Your task to perform on an android device: open the mobile data screen to see how much data has been used Image 0: 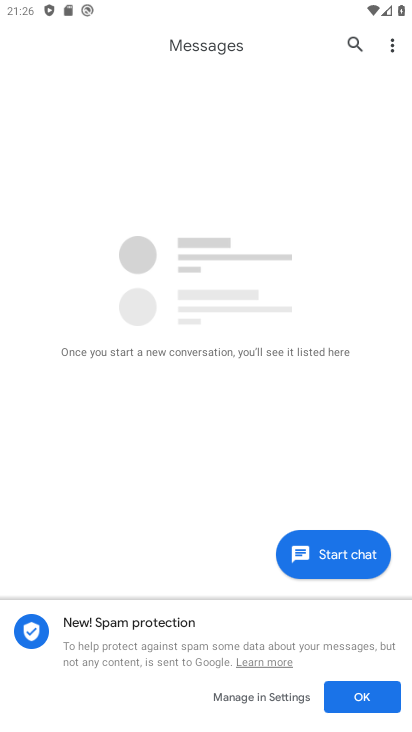
Step 0: press home button
Your task to perform on an android device: open the mobile data screen to see how much data has been used Image 1: 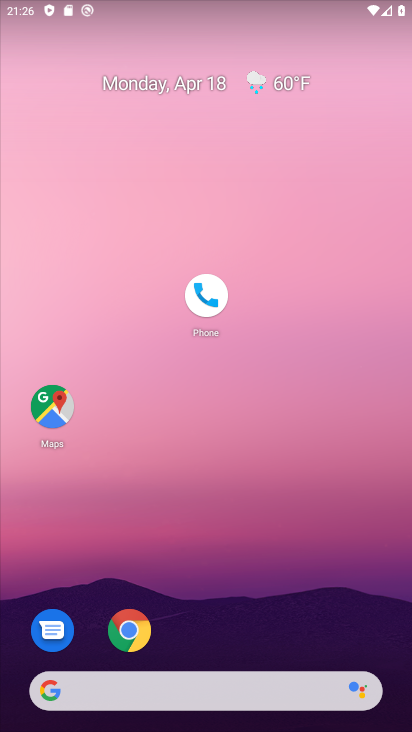
Step 1: drag from (315, 578) to (341, 47)
Your task to perform on an android device: open the mobile data screen to see how much data has been used Image 2: 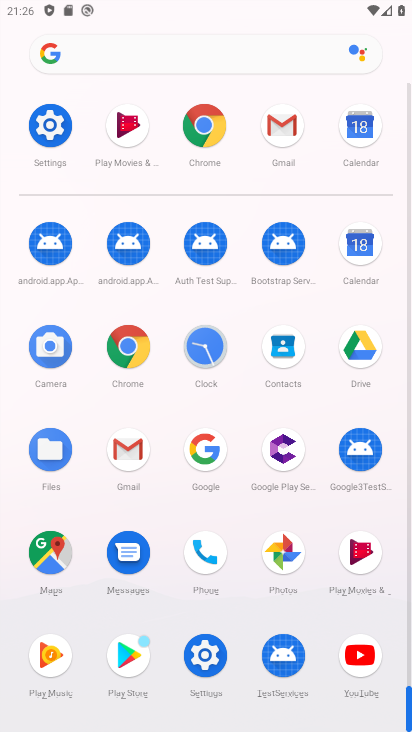
Step 2: click (52, 114)
Your task to perform on an android device: open the mobile data screen to see how much data has been used Image 3: 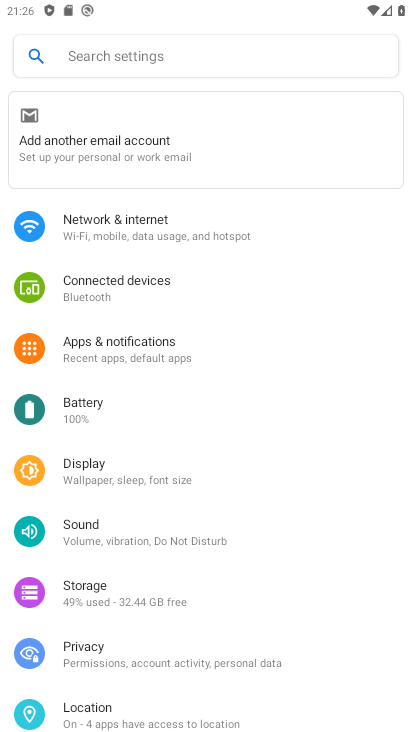
Step 3: click (153, 224)
Your task to perform on an android device: open the mobile data screen to see how much data has been used Image 4: 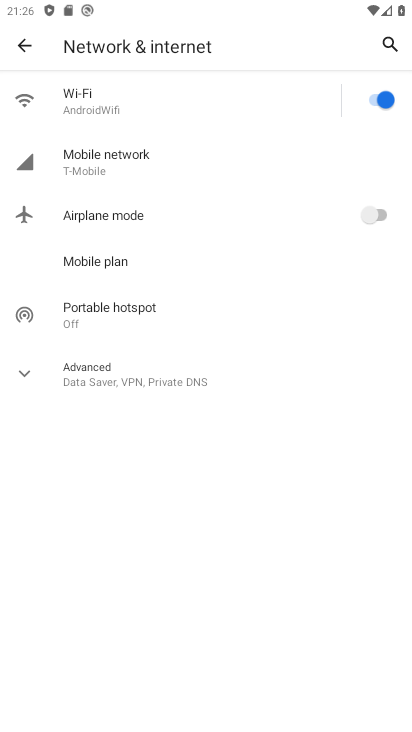
Step 4: click (135, 153)
Your task to perform on an android device: open the mobile data screen to see how much data has been used Image 5: 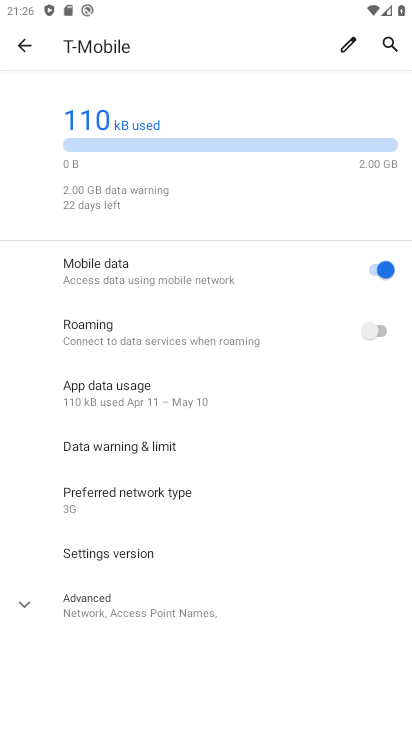
Step 5: task complete